Your task to perform on an android device: check the backup settings in the google photos Image 0: 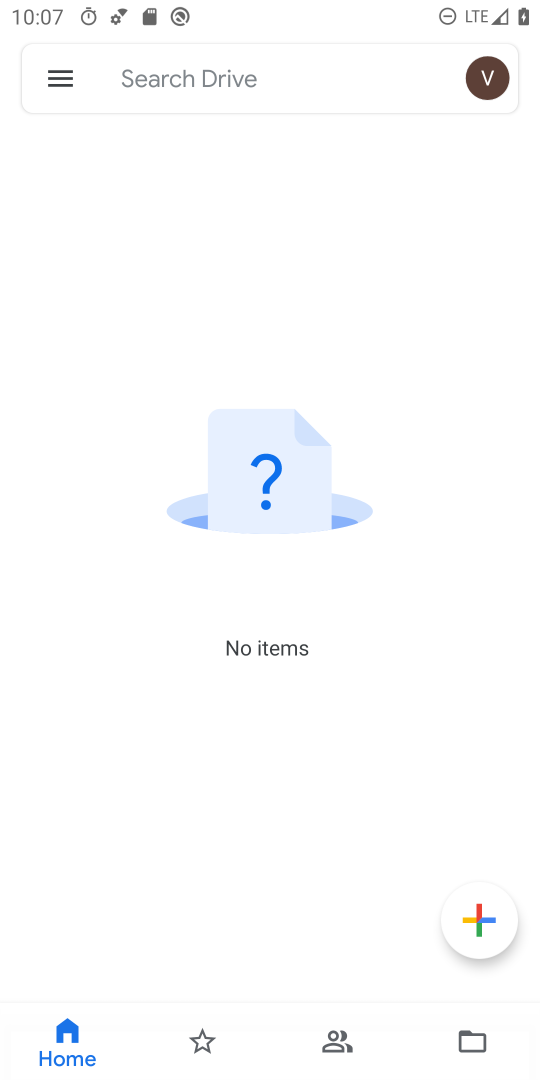
Step 0: press home button
Your task to perform on an android device: check the backup settings in the google photos Image 1: 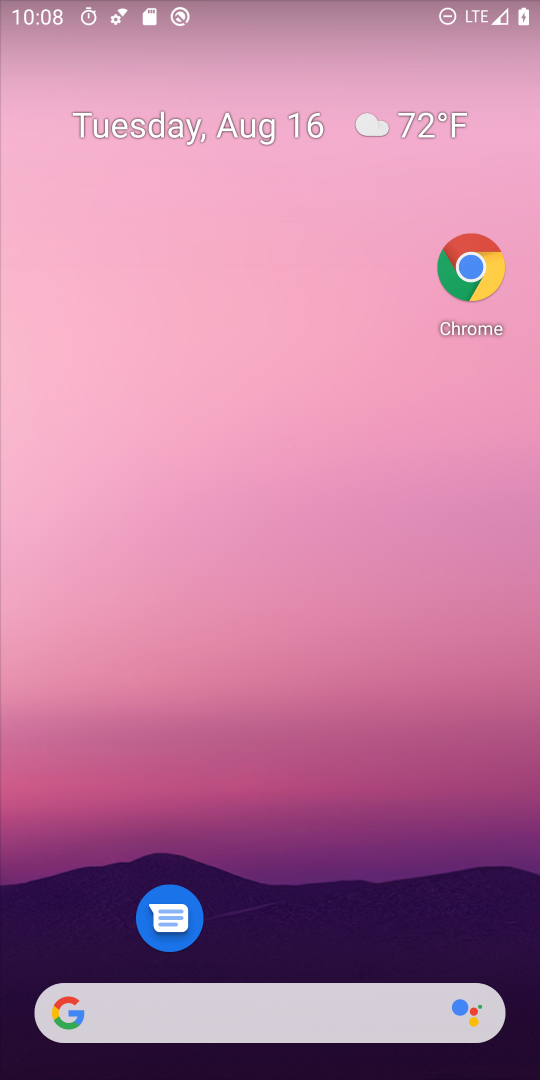
Step 1: drag from (238, 950) to (309, 183)
Your task to perform on an android device: check the backup settings in the google photos Image 2: 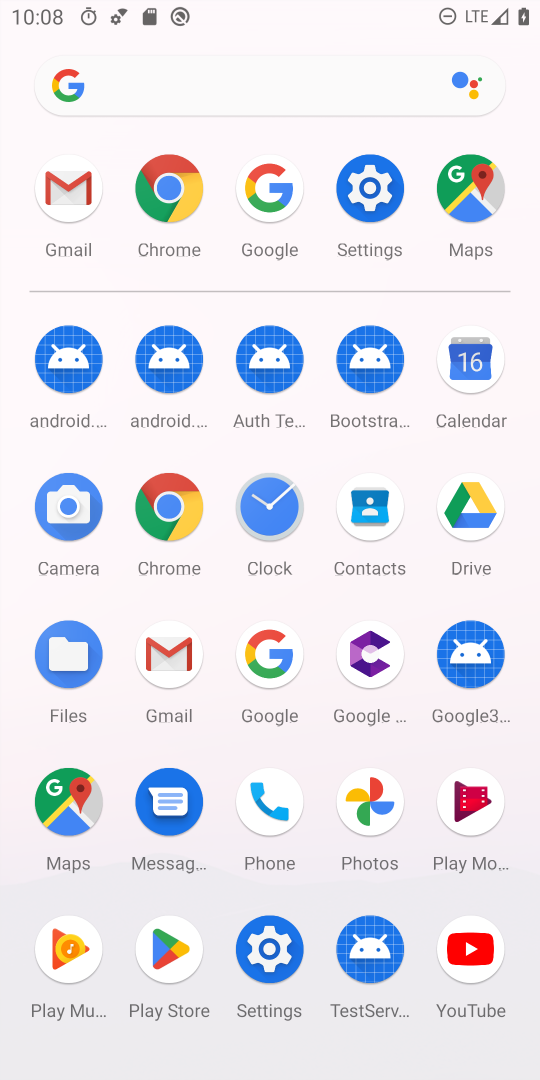
Step 2: click (371, 822)
Your task to perform on an android device: check the backup settings in the google photos Image 3: 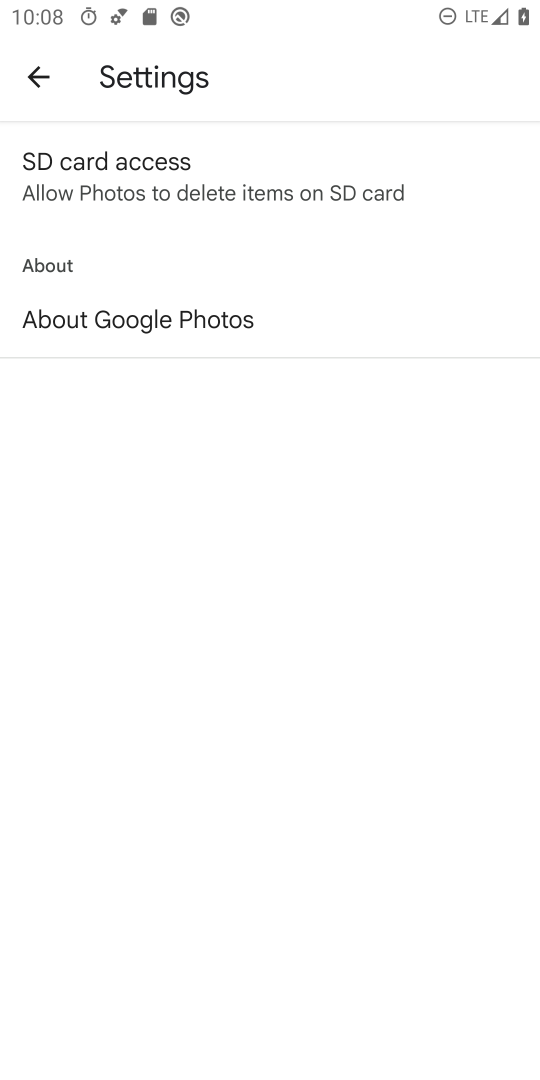
Step 3: click (60, 72)
Your task to perform on an android device: check the backup settings in the google photos Image 4: 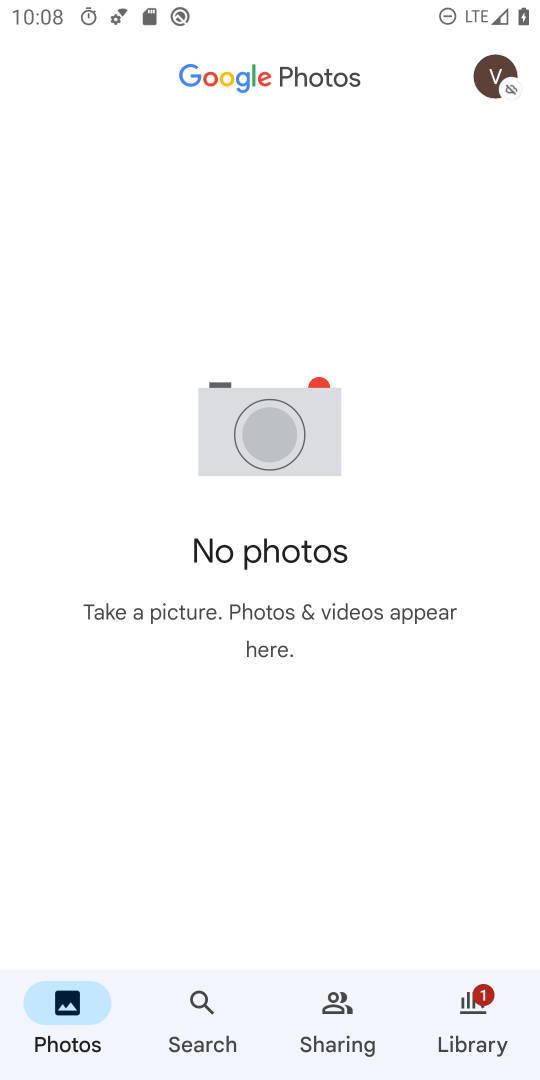
Step 4: click (493, 71)
Your task to perform on an android device: check the backup settings in the google photos Image 5: 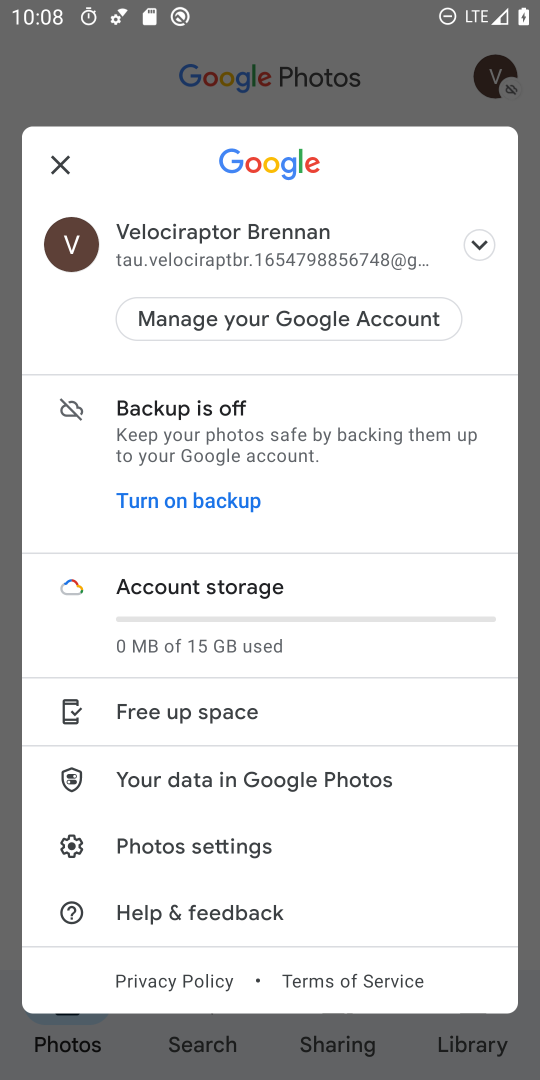
Step 5: click (241, 848)
Your task to perform on an android device: check the backup settings in the google photos Image 6: 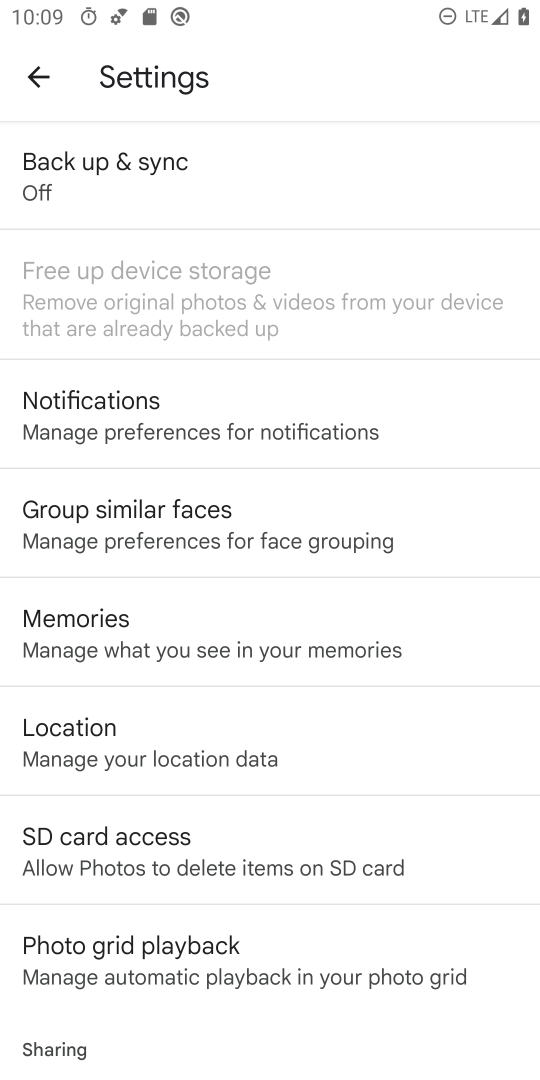
Step 6: click (285, 188)
Your task to perform on an android device: check the backup settings in the google photos Image 7: 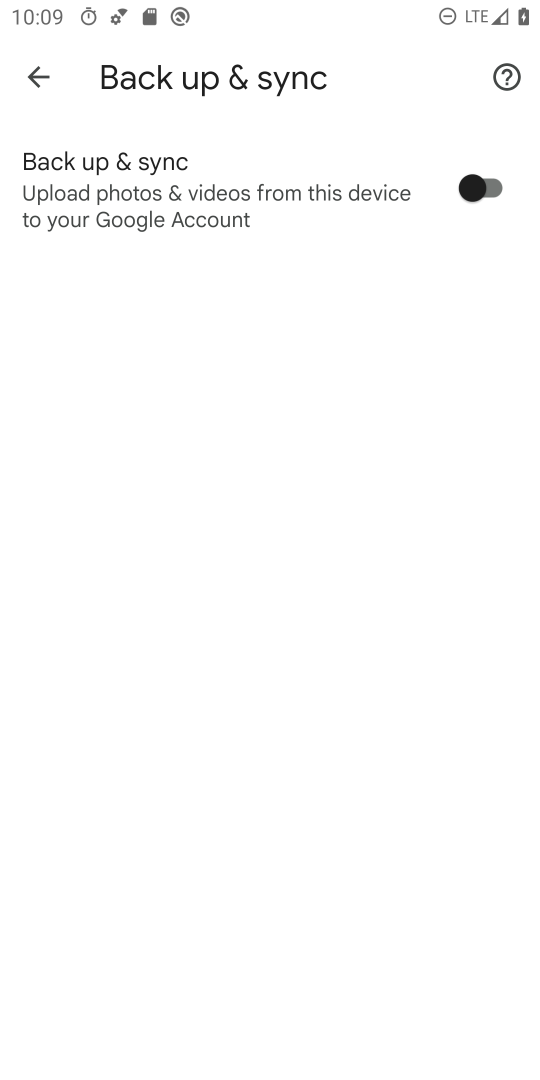
Step 7: task complete